Your task to perform on an android device: Open location settings Image 0: 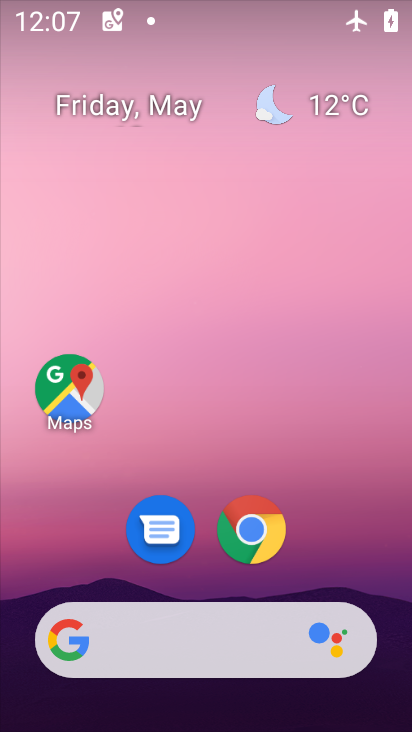
Step 0: drag from (254, 545) to (251, 61)
Your task to perform on an android device: Open location settings Image 1: 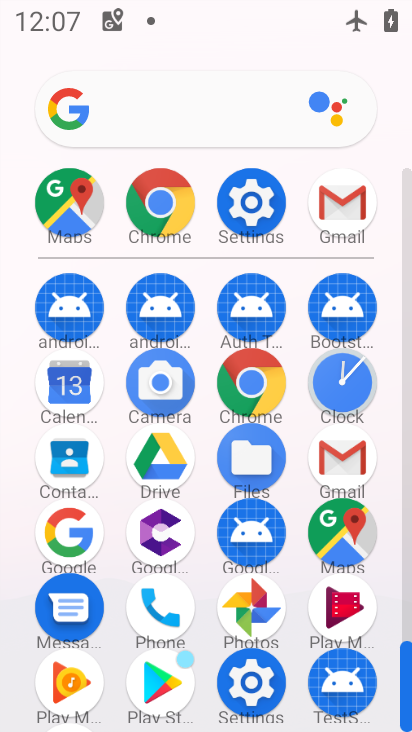
Step 1: click (260, 194)
Your task to perform on an android device: Open location settings Image 2: 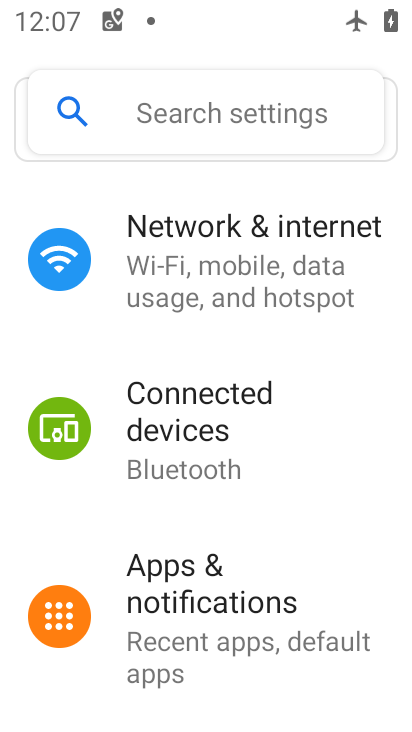
Step 2: drag from (212, 646) to (206, 236)
Your task to perform on an android device: Open location settings Image 3: 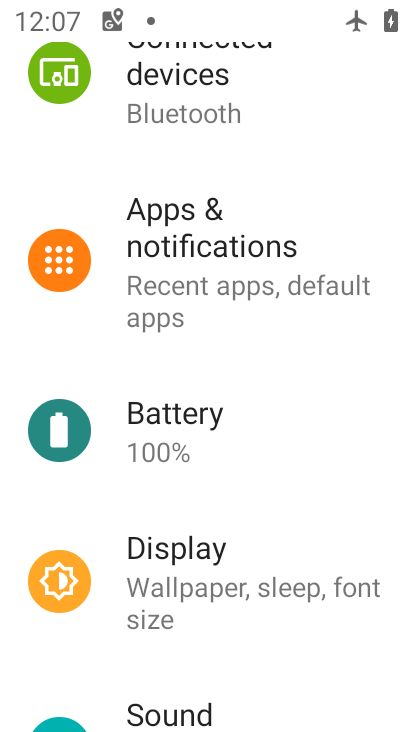
Step 3: drag from (242, 635) to (211, 220)
Your task to perform on an android device: Open location settings Image 4: 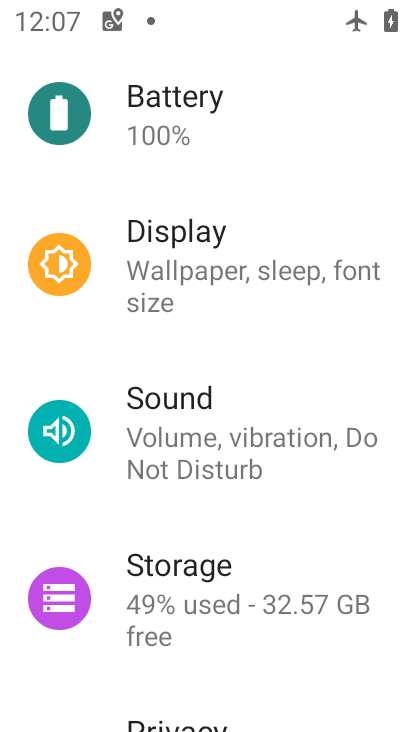
Step 4: drag from (269, 675) to (208, 176)
Your task to perform on an android device: Open location settings Image 5: 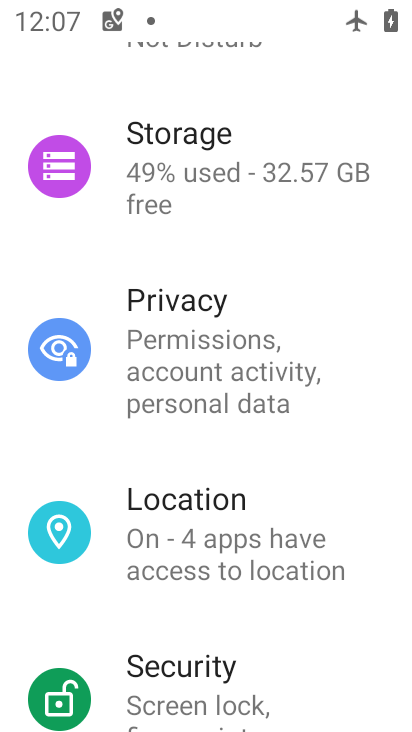
Step 5: click (179, 529)
Your task to perform on an android device: Open location settings Image 6: 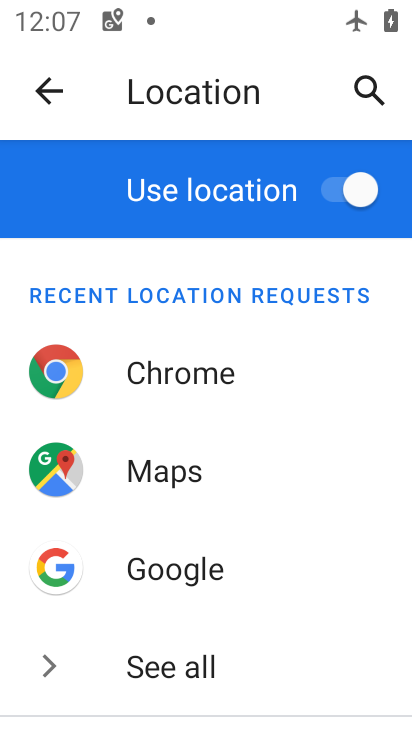
Step 6: task complete